Your task to perform on an android device: Is it going to rain tomorrow? Image 0: 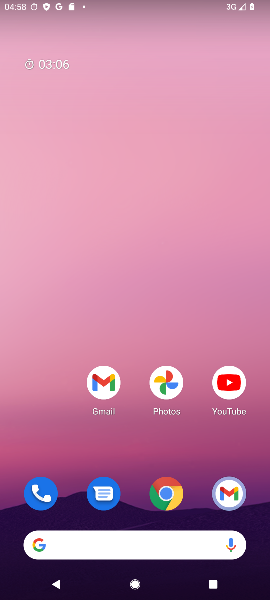
Step 0: click (149, 544)
Your task to perform on an android device: Is it going to rain tomorrow? Image 1: 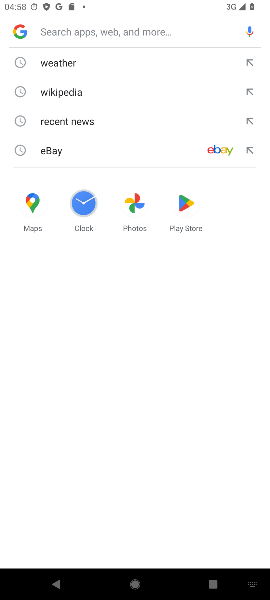
Step 1: click (62, 63)
Your task to perform on an android device: Is it going to rain tomorrow? Image 2: 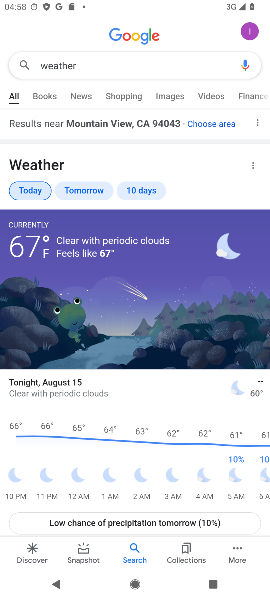
Step 2: click (85, 193)
Your task to perform on an android device: Is it going to rain tomorrow? Image 3: 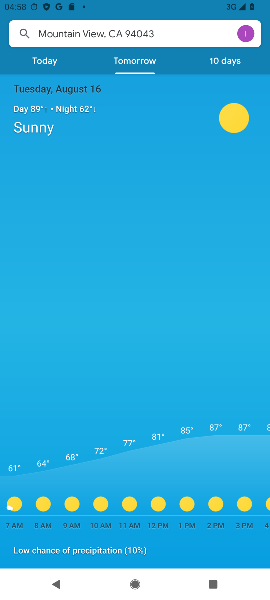
Step 3: task complete